Your task to perform on an android device: Open Google Chrome and click the shortcut for Amazon.com Image 0: 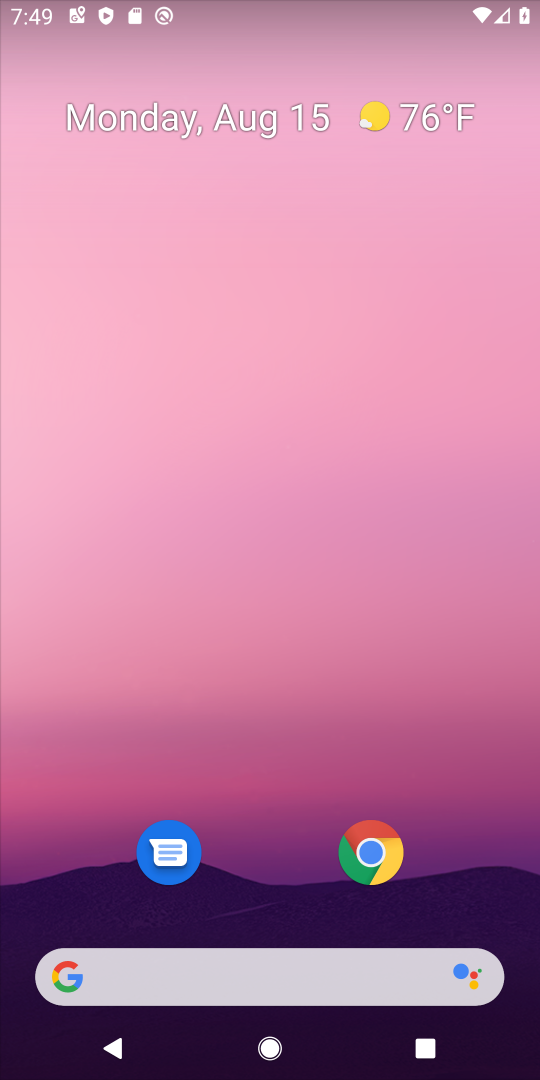
Step 0: drag from (307, 978) to (297, 112)
Your task to perform on an android device: Open Google Chrome and click the shortcut for Amazon.com Image 1: 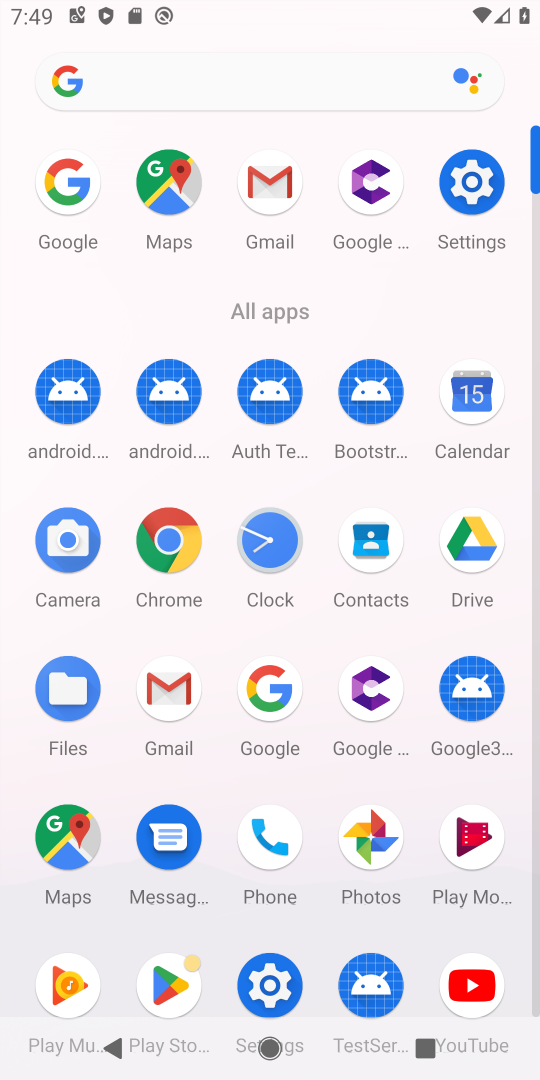
Step 1: click (168, 539)
Your task to perform on an android device: Open Google Chrome and click the shortcut for Amazon.com Image 2: 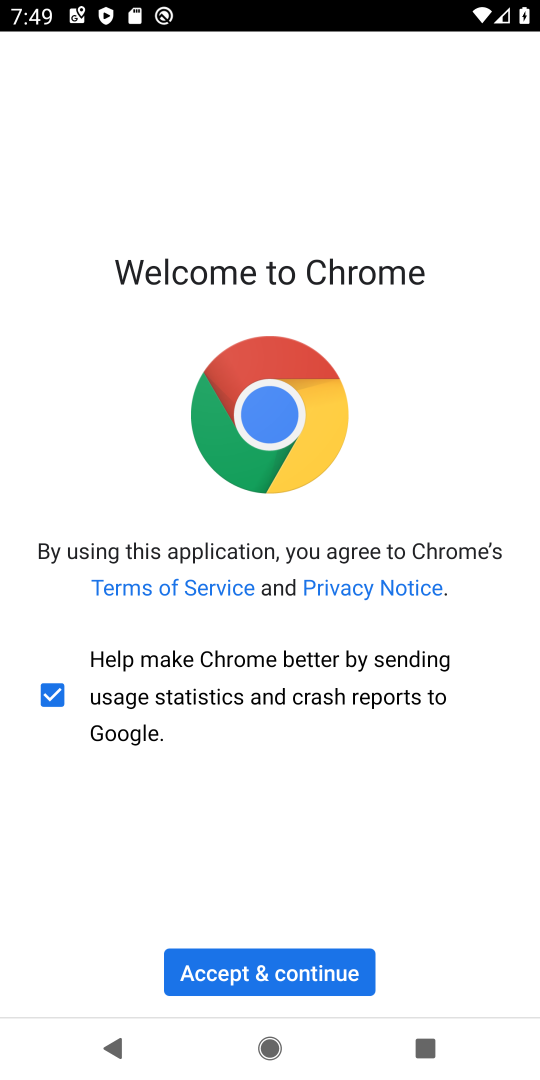
Step 2: click (259, 973)
Your task to perform on an android device: Open Google Chrome and click the shortcut for Amazon.com Image 3: 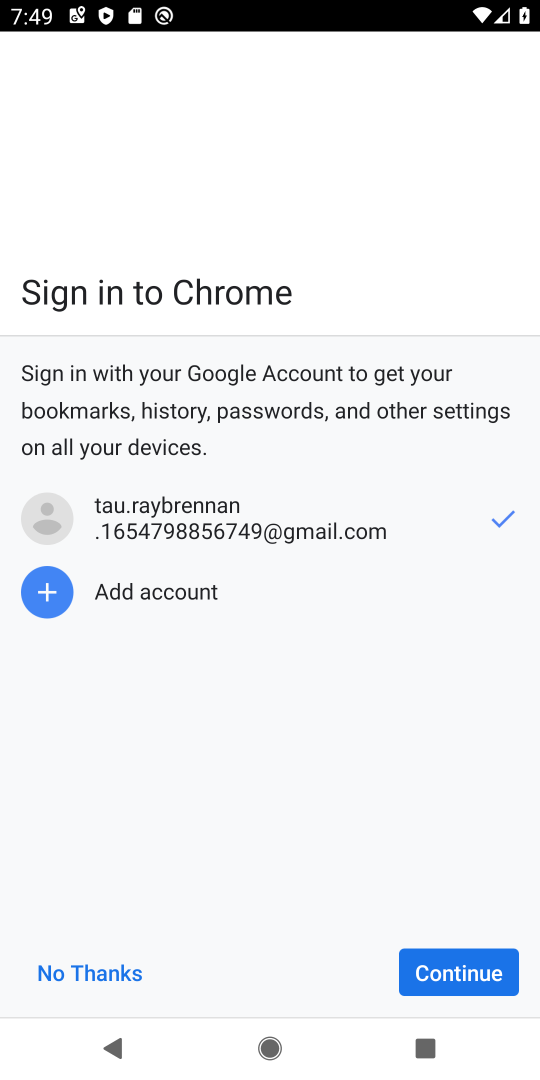
Step 3: click (461, 972)
Your task to perform on an android device: Open Google Chrome and click the shortcut for Amazon.com Image 4: 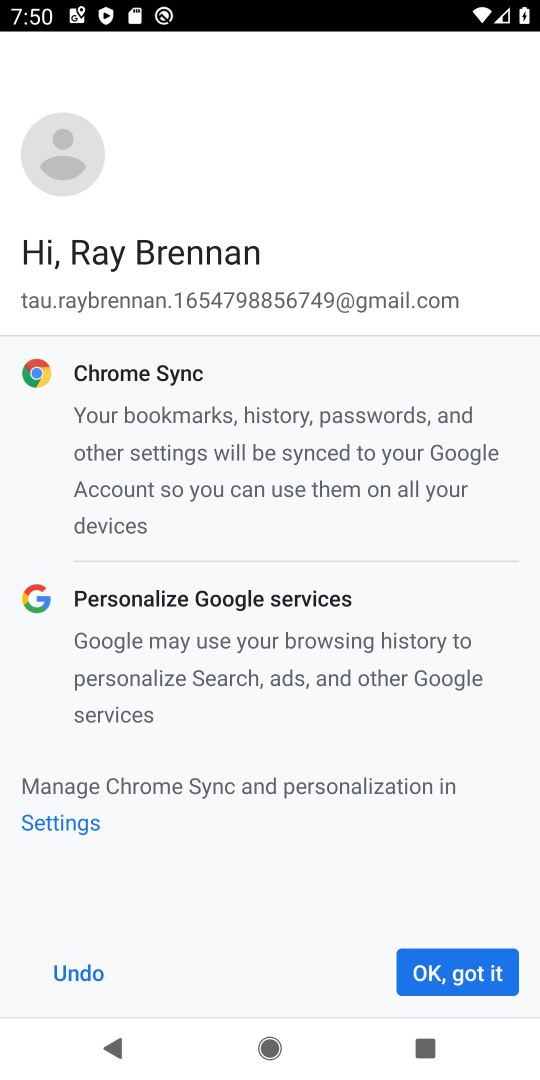
Step 4: click (461, 972)
Your task to perform on an android device: Open Google Chrome and click the shortcut for Amazon.com Image 5: 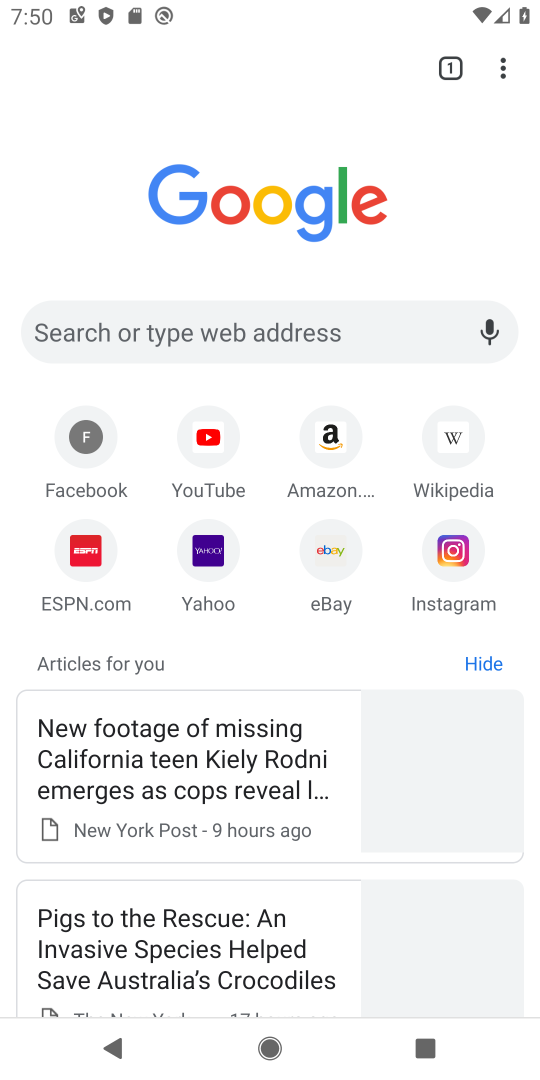
Step 5: click (322, 444)
Your task to perform on an android device: Open Google Chrome and click the shortcut for Amazon.com Image 6: 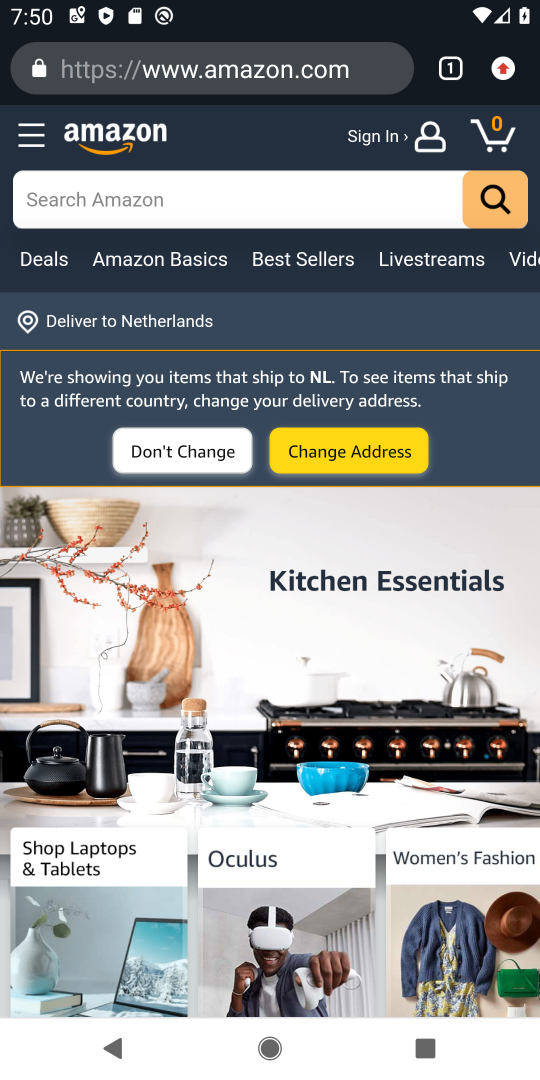
Step 6: click (506, 65)
Your task to perform on an android device: Open Google Chrome and click the shortcut for Amazon.com Image 7: 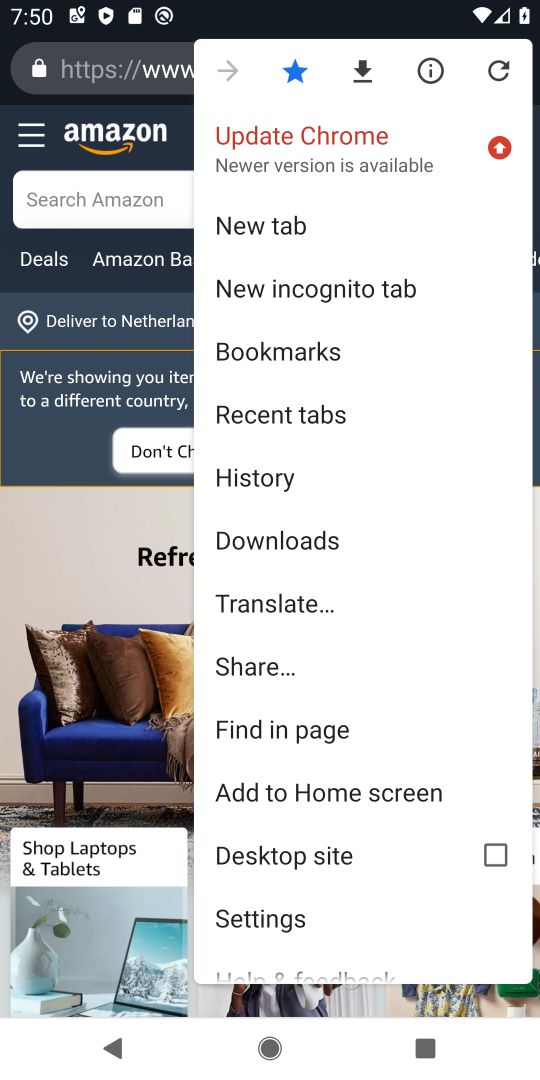
Step 7: click (314, 787)
Your task to perform on an android device: Open Google Chrome and click the shortcut for Amazon.com Image 8: 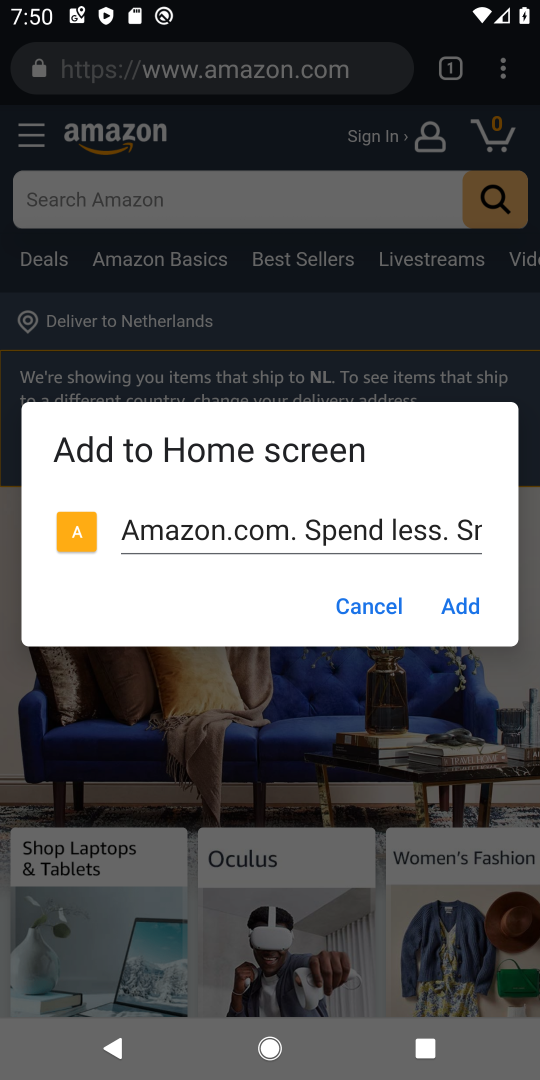
Step 8: click (472, 607)
Your task to perform on an android device: Open Google Chrome and click the shortcut for Amazon.com Image 9: 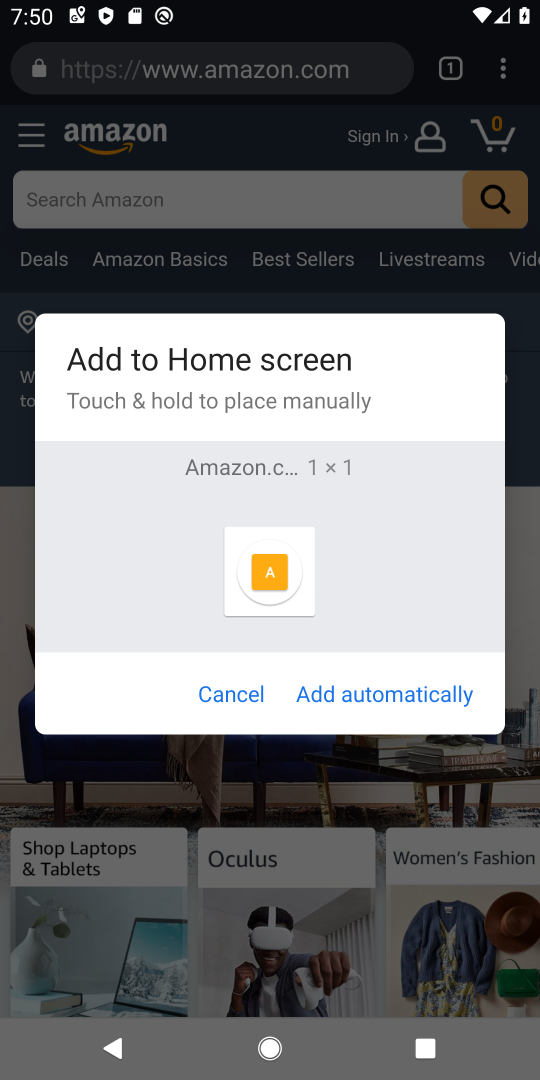
Step 9: click (408, 698)
Your task to perform on an android device: Open Google Chrome and click the shortcut for Amazon.com Image 10: 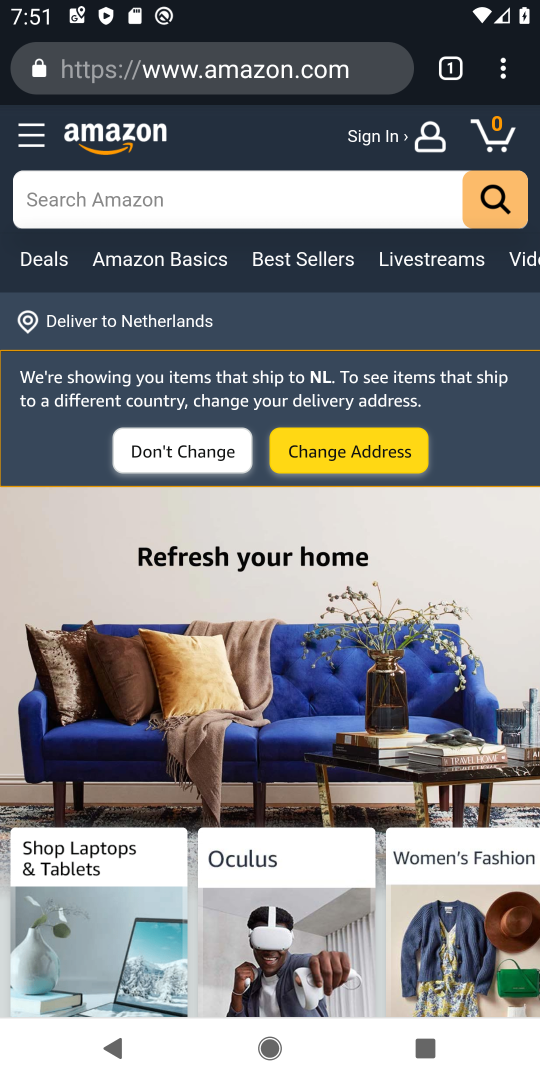
Step 10: task complete